Your task to perform on an android device: check data usage Image 0: 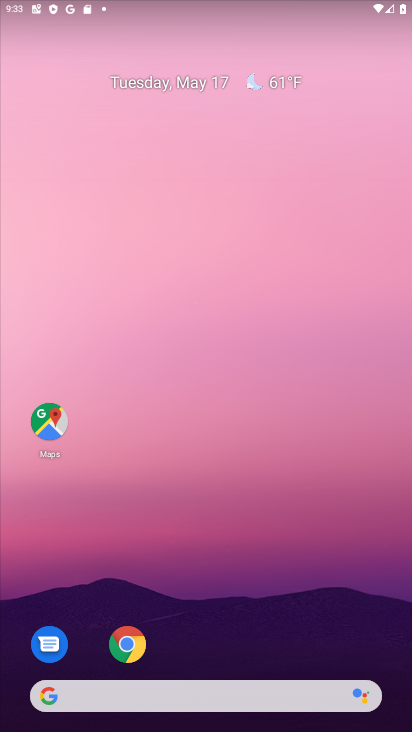
Step 0: drag from (266, 635) to (223, 145)
Your task to perform on an android device: check data usage Image 1: 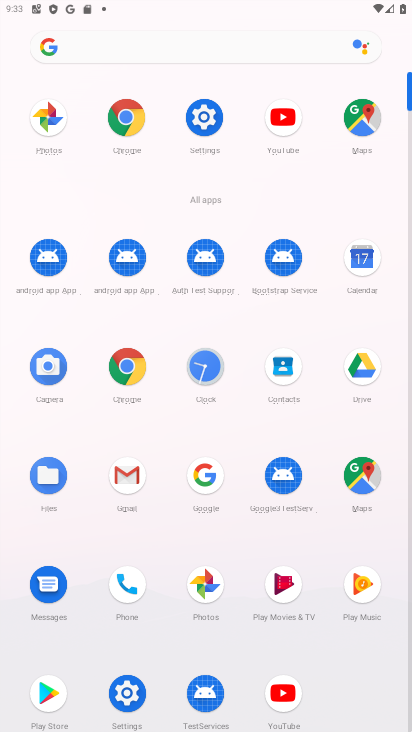
Step 1: click (212, 114)
Your task to perform on an android device: check data usage Image 2: 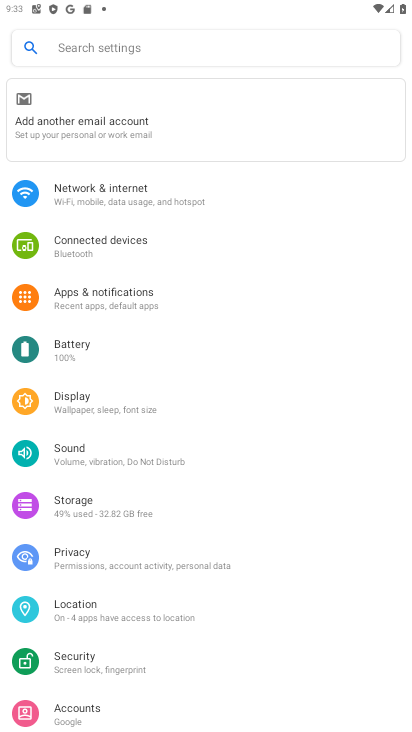
Step 2: click (173, 203)
Your task to perform on an android device: check data usage Image 3: 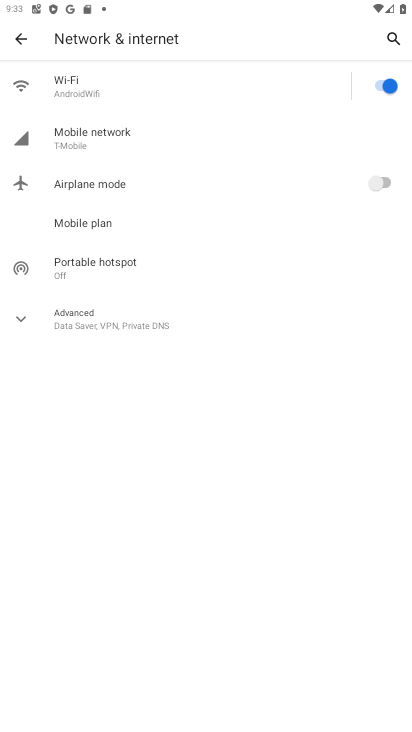
Step 3: click (111, 138)
Your task to perform on an android device: check data usage Image 4: 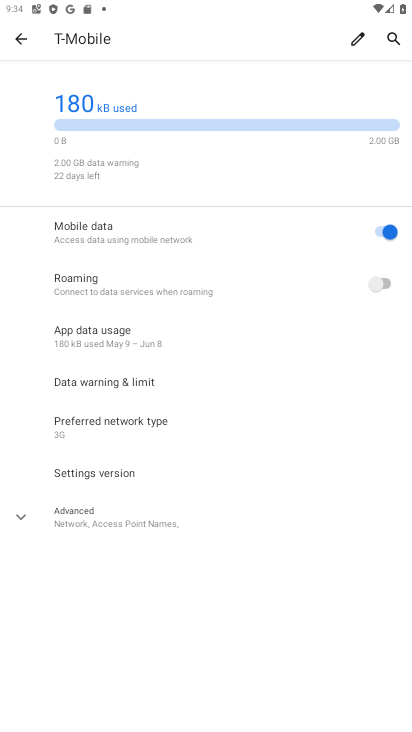
Step 4: task complete